Your task to perform on an android device: Open Google Chrome and click the shortcut for Amazon.com Image 0: 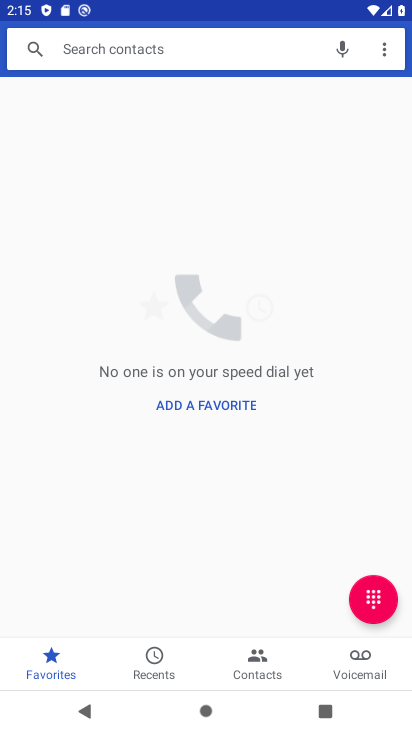
Step 0: press home button
Your task to perform on an android device: Open Google Chrome and click the shortcut for Amazon.com Image 1: 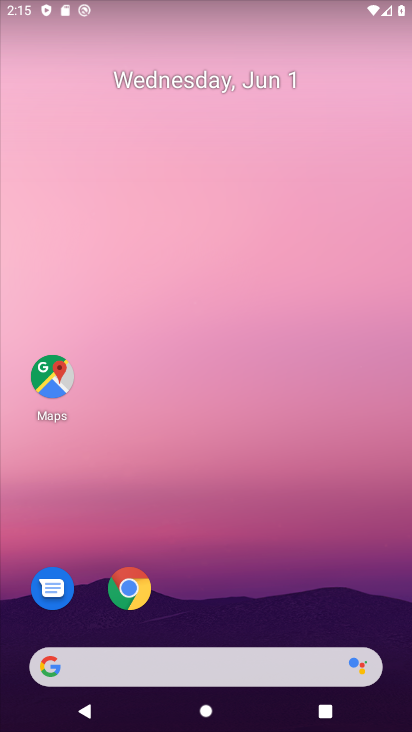
Step 1: click (129, 583)
Your task to perform on an android device: Open Google Chrome and click the shortcut for Amazon.com Image 2: 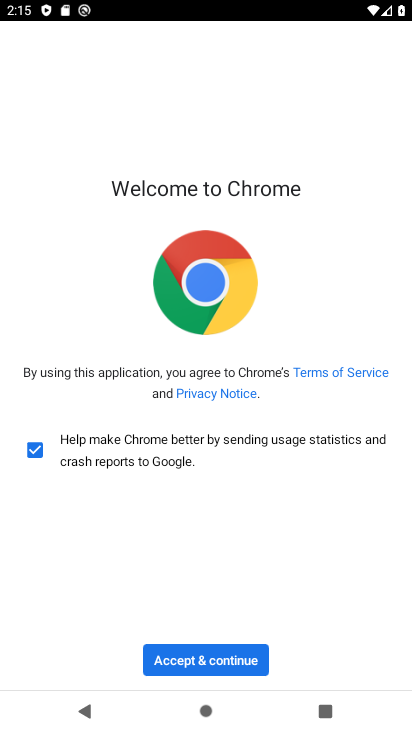
Step 2: click (215, 662)
Your task to perform on an android device: Open Google Chrome and click the shortcut for Amazon.com Image 3: 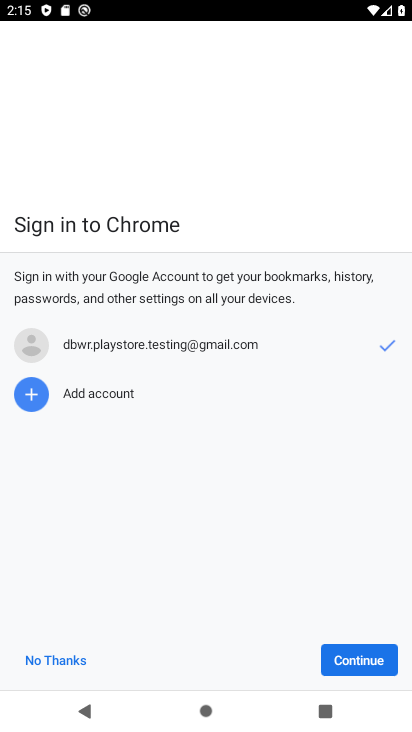
Step 3: click (336, 658)
Your task to perform on an android device: Open Google Chrome and click the shortcut for Amazon.com Image 4: 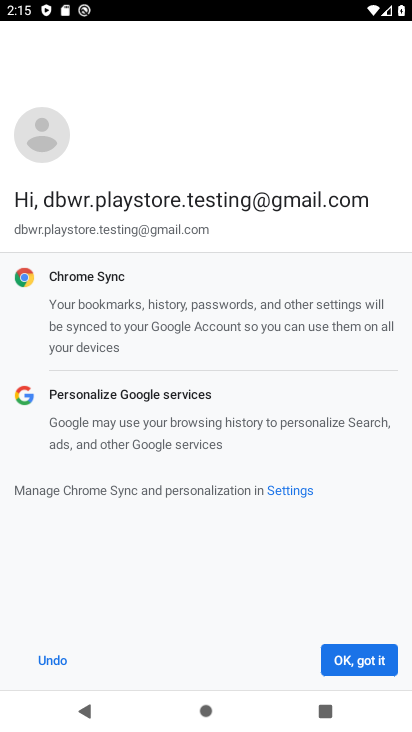
Step 4: click (336, 658)
Your task to perform on an android device: Open Google Chrome and click the shortcut for Amazon.com Image 5: 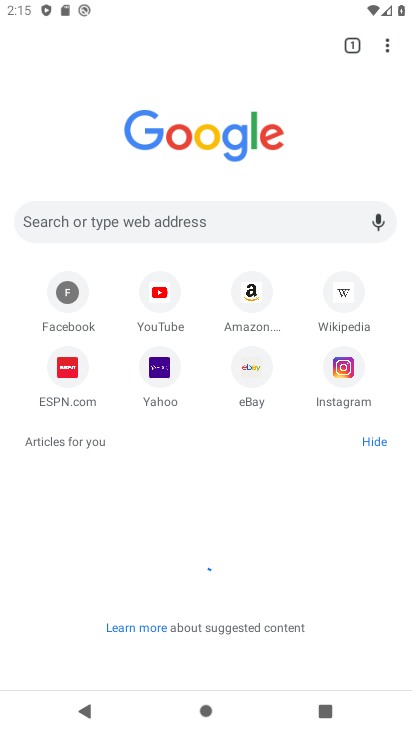
Step 5: click (242, 294)
Your task to perform on an android device: Open Google Chrome and click the shortcut for Amazon.com Image 6: 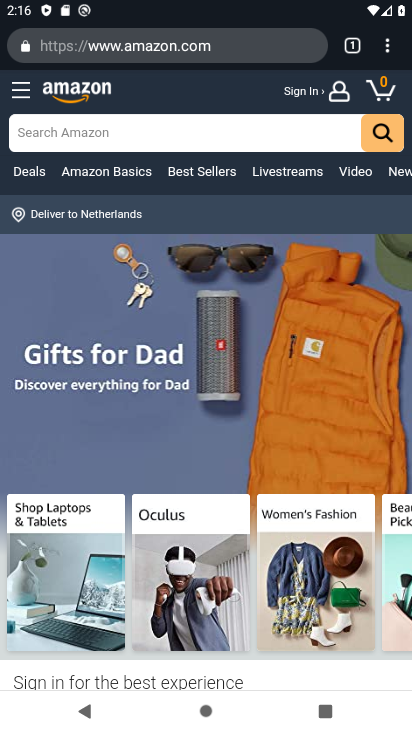
Step 6: task complete